Your task to perform on an android device: open a bookmark in the chrome app Image 0: 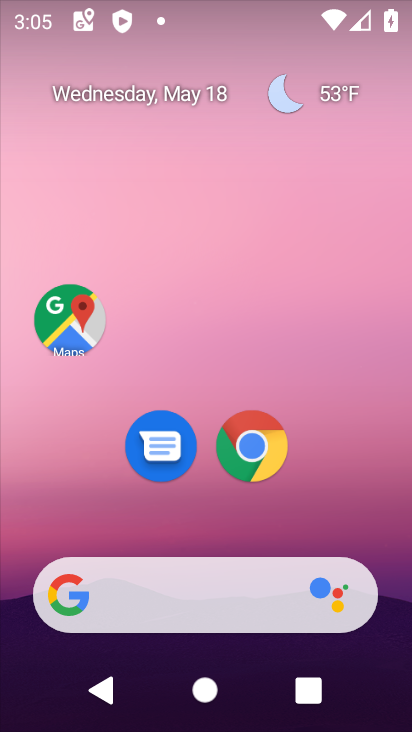
Step 0: click (273, 450)
Your task to perform on an android device: open a bookmark in the chrome app Image 1: 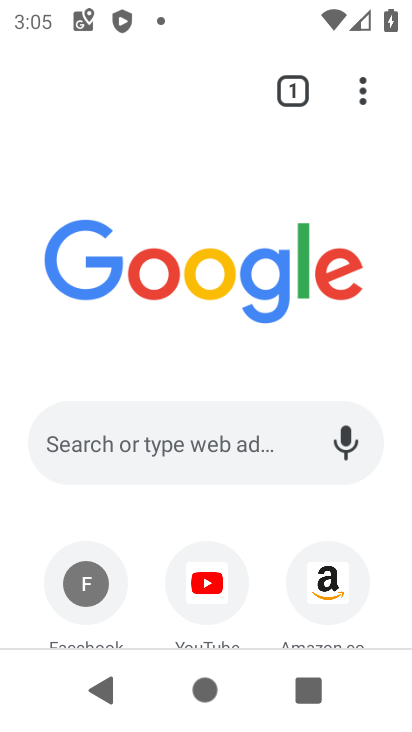
Step 1: click (391, 106)
Your task to perform on an android device: open a bookmark in the chrome app Image 2: 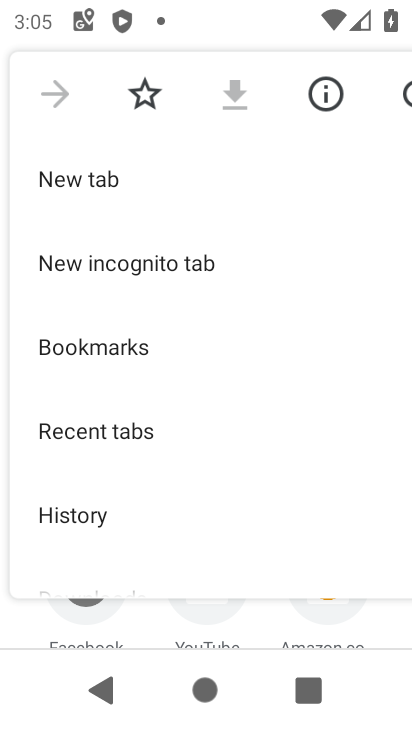
Step 2: drag from (188, 474) to (182, 366)
Your task to perform on an android device: open a bookmark in the chrome app Image 3: 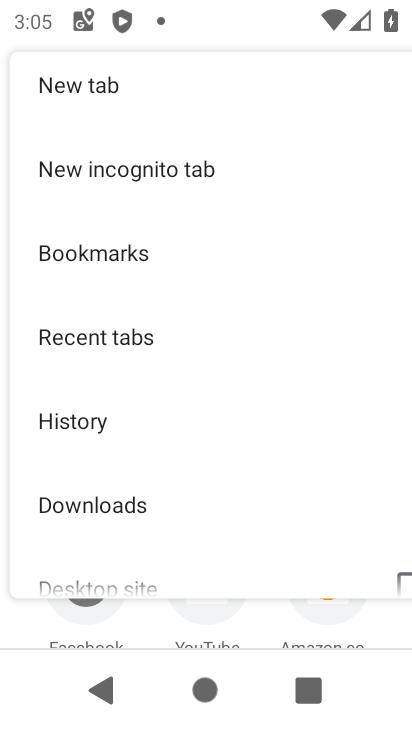
Step 3: click (135, 248)
Your task to perform on an android device: open a bookmark in the chrome app Image 4: 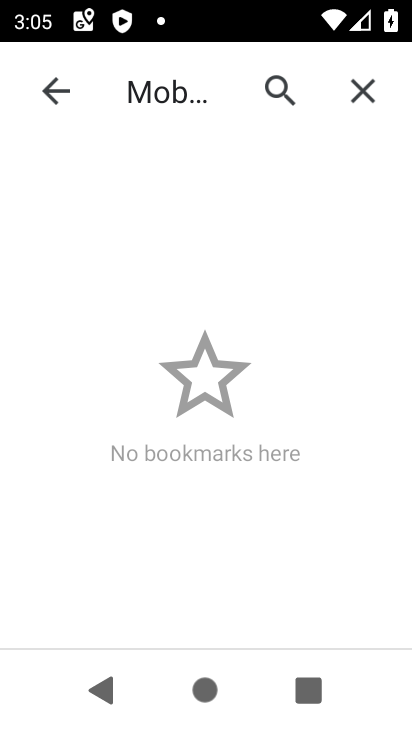
Step 4: task complete